Your task to perform on an android device: Clear all items from cart on newegg. Image 0: 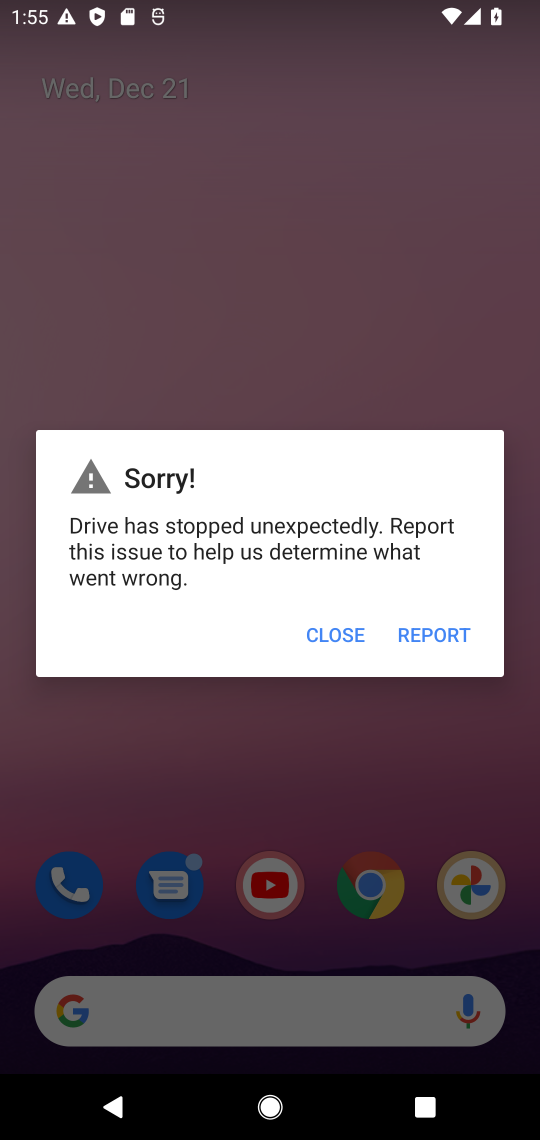
Step 0: press home button
Your task to perform on an android device: Clear all items from cart on newegg. Image 1: 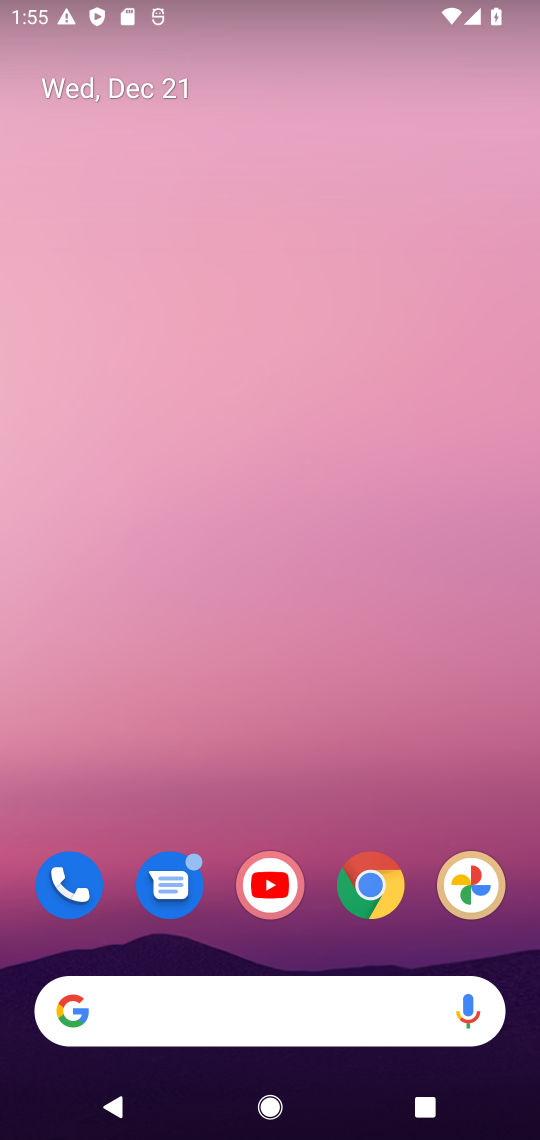
Step 1: drag from (219, 997) to (206, 627)
Your task to perform on an android device: Clear all items from cart on newegg. Image 2: 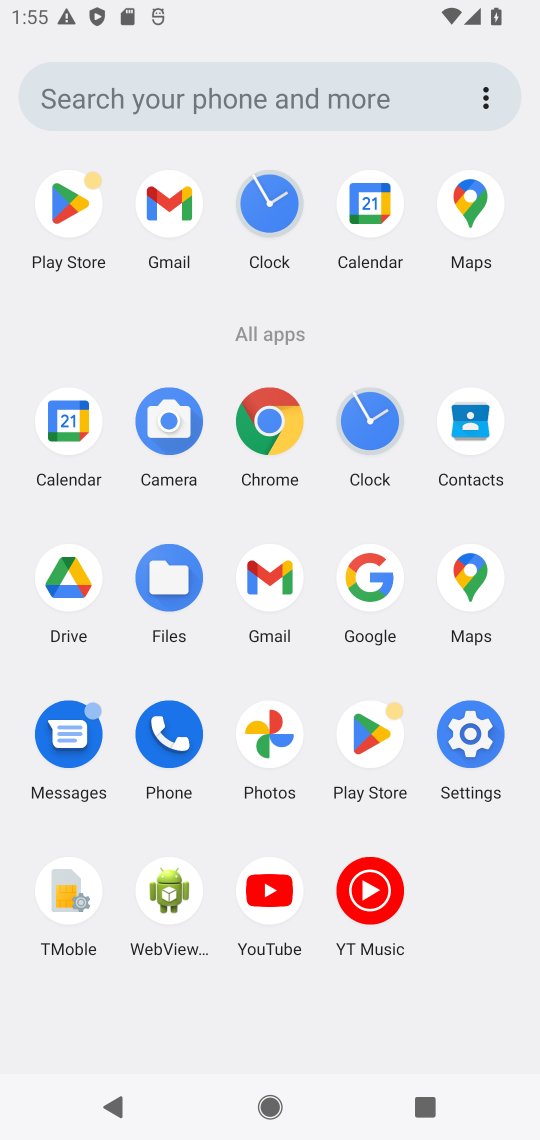
Step 2: click (365, 583)
Your task to perform on an android device: Clear all items from cart on newegg. Image 3: 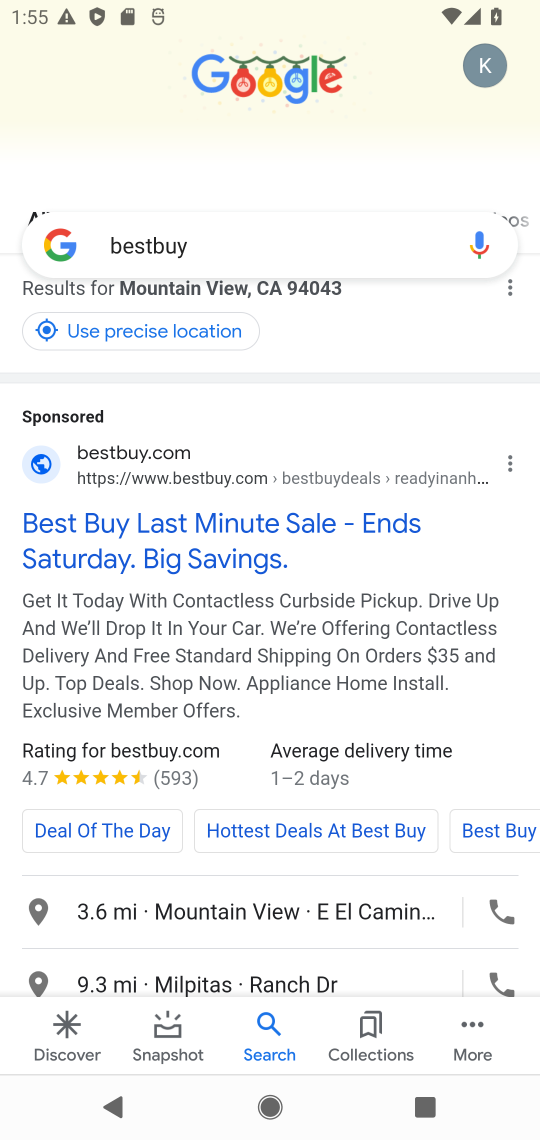
Step 3: click (131, 244)
Your task to perform on an android device: Clear all items from cart on newegg. Image 4: 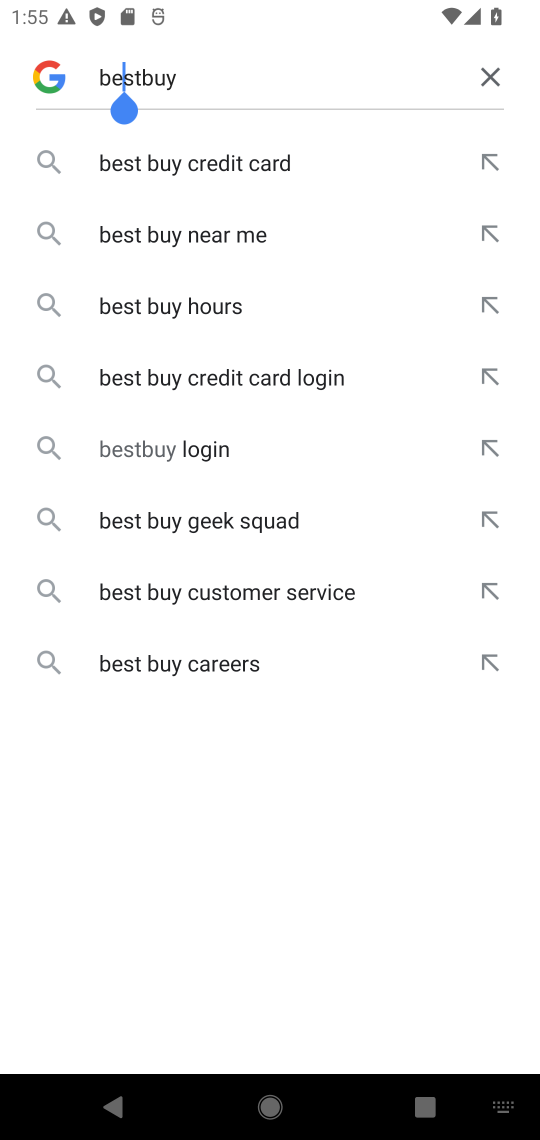
Step 4: click (497, 77)
Your task to perform on an android device: Clear all items from cart on newegg. Image 5: 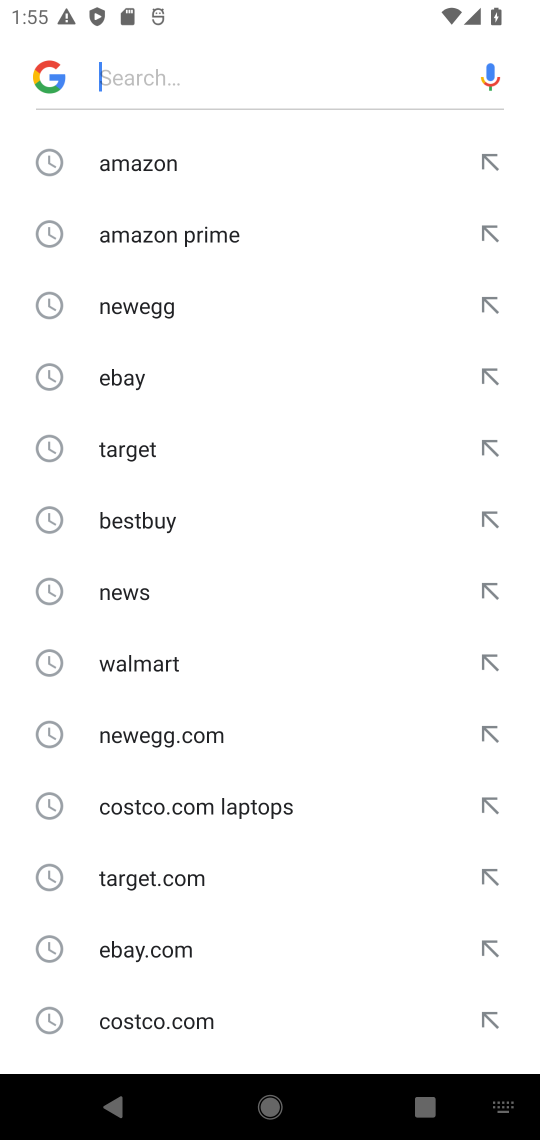
Step 5: click (149, 312)
Your task to perform on an android device: Clear all items from cart on newegg. Image 6: 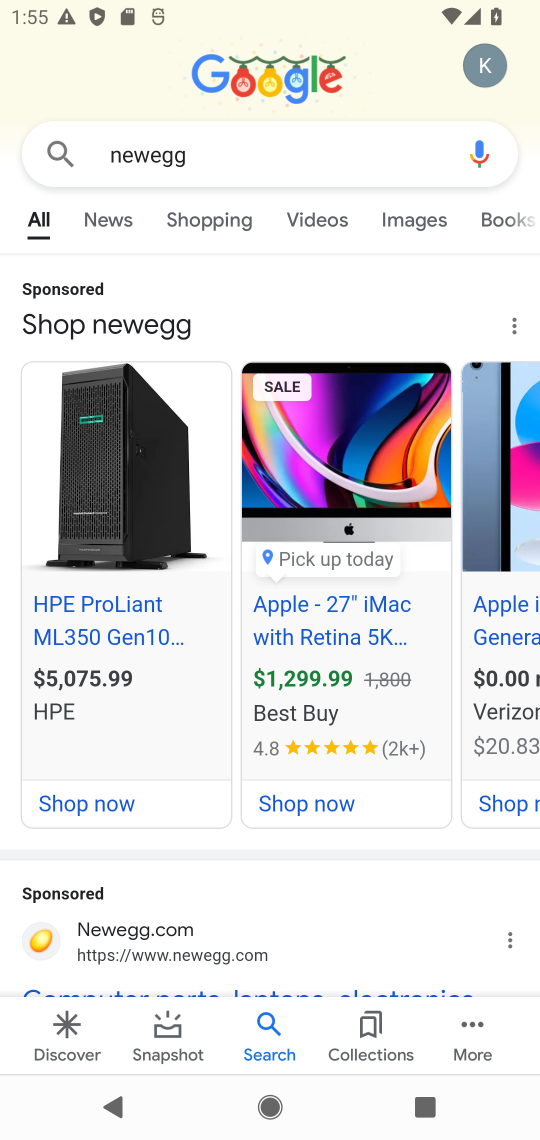
Step 6: drag from (173, 928) to (184, 553)
Your task to perform on an android device: Clear all items from cart on newegg. Image 7: 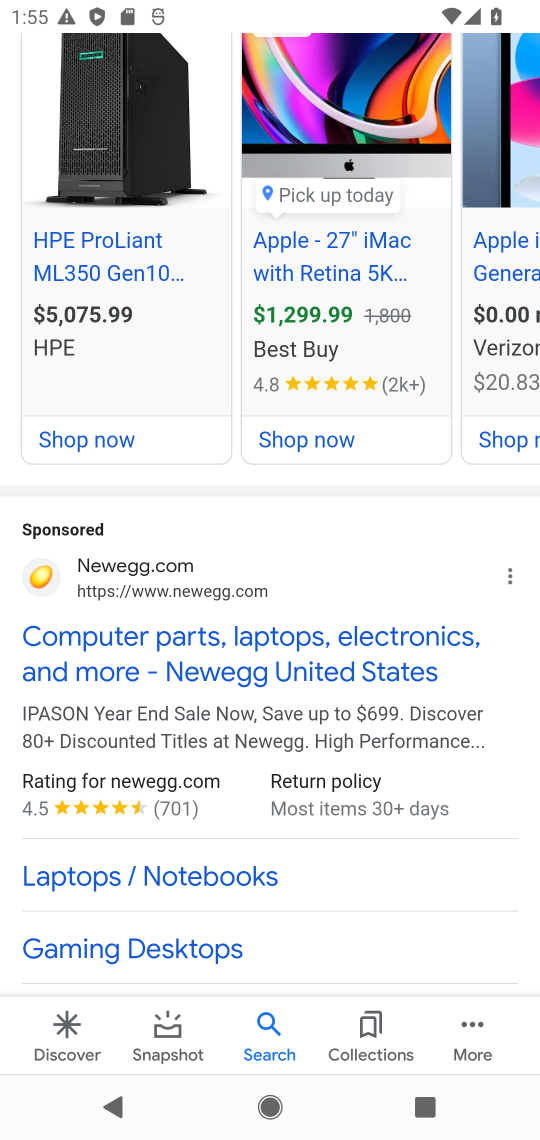
Step 7: drag from (185, 859) to (167, 531)
Your task to perform on an android device: Clear all items from cart on newegg. Image 8: 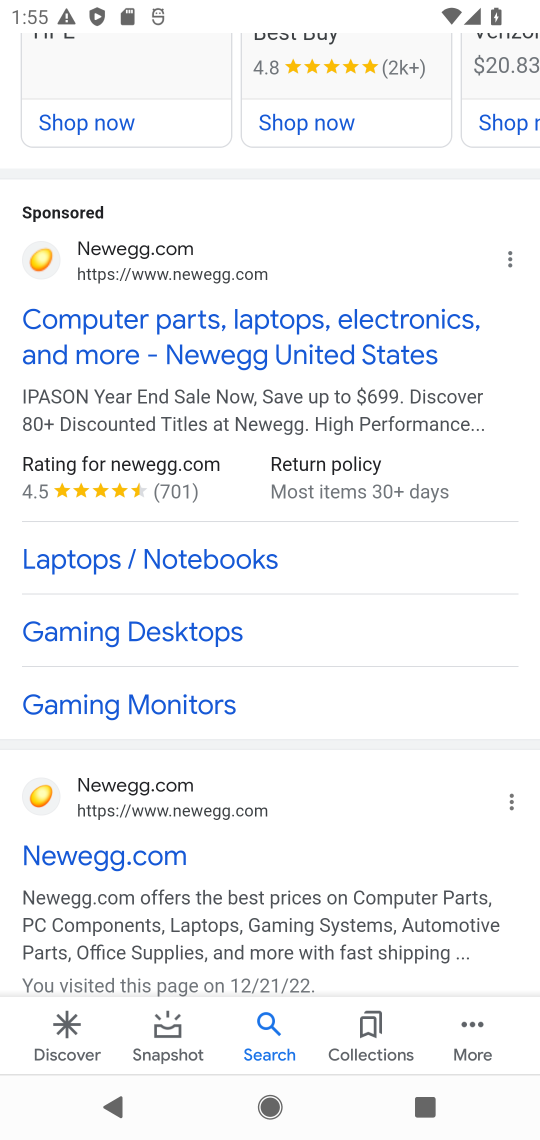
Step 8: click (117, 867)
Your task to perform on an android device: Clear all items from cart on newegg. Image 9: 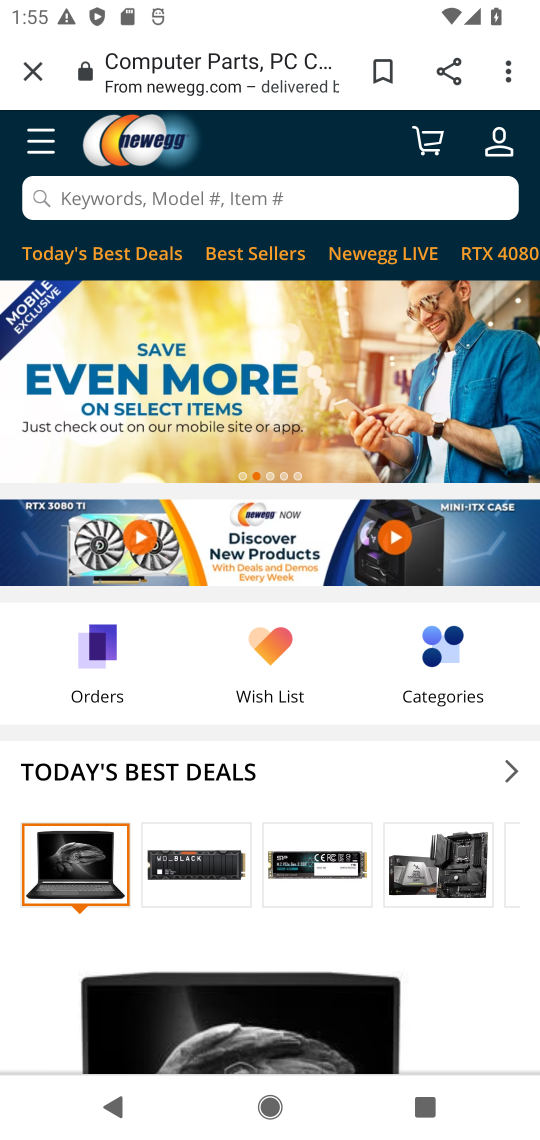
Step 9: click (430, 150)
Your task to perform on an android device: Clear all items from cart on newegg. Image 10: 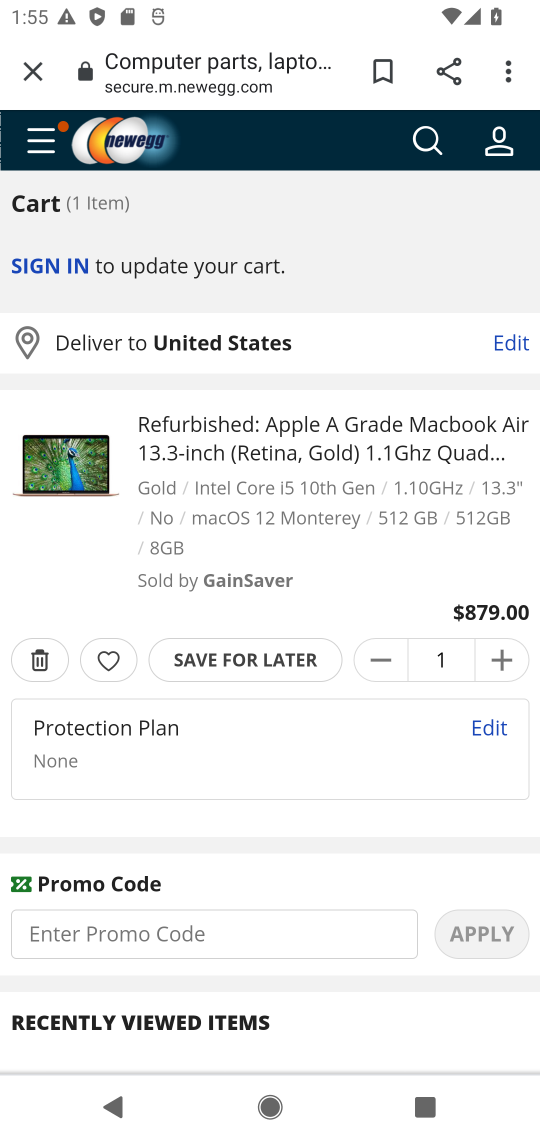
Step 10: click (38, 657)
Your task to perform on an android device: Clear all items from cart on newegg. Image 11: 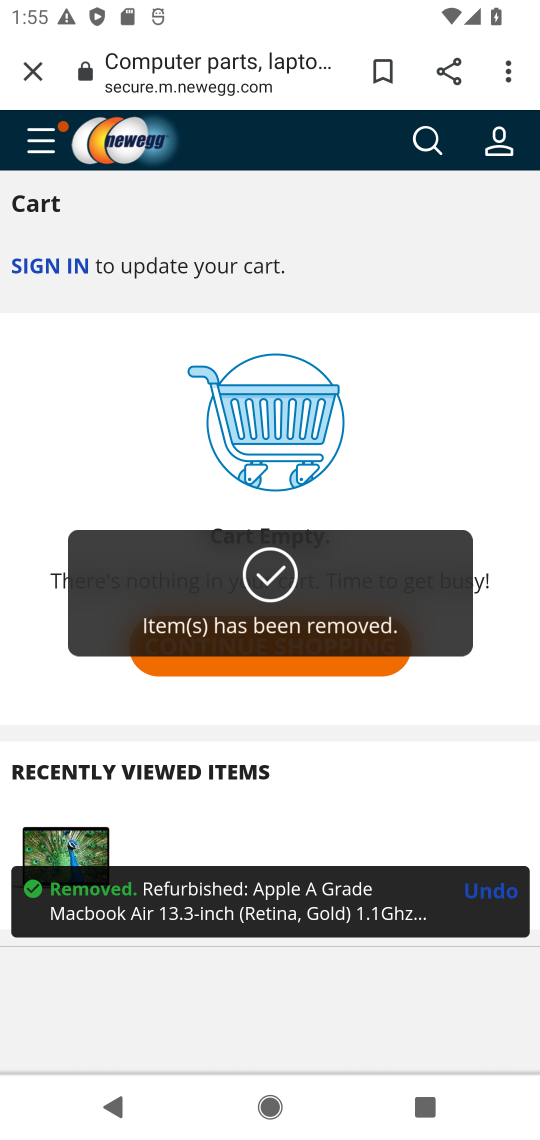
Step 11: task complete